Your task to perform on an android device: Open Chrome and go to the settings page Image 0: 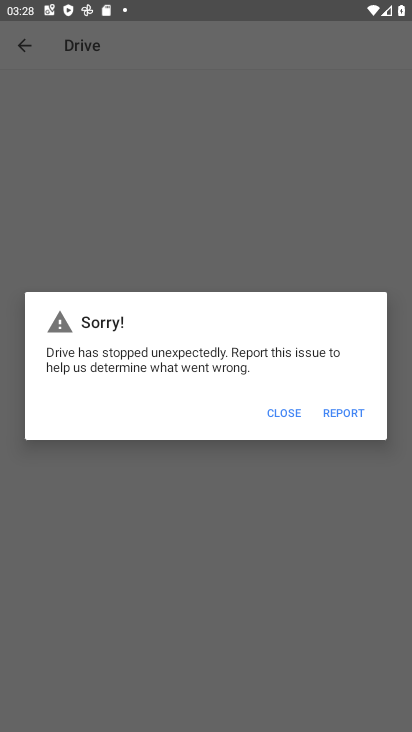
Step 0: press home button
Your task to perform on an android device: Open Chrome and go to the settings page Image 1: 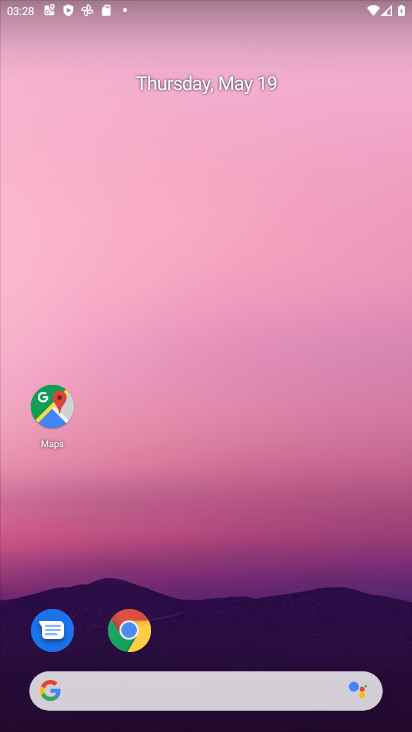
Step 1: click (131, 631)
Your task to perform on an android device: Open Chrome and go to the settings page Image 2: 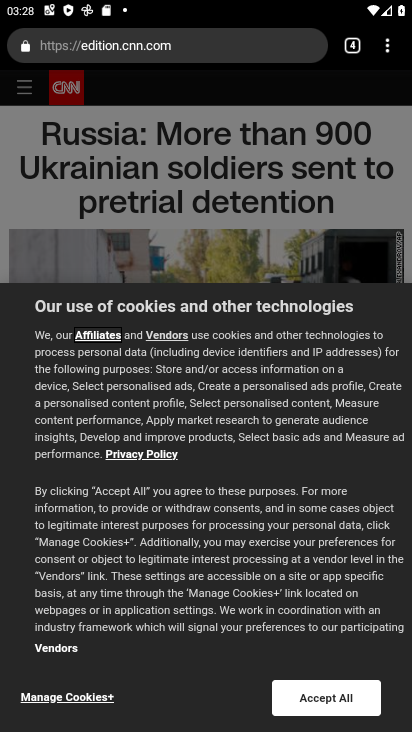
Step 2: click (388, 54)
Your task to perform on an android device: Open Chrome and go to the settings page Image 3: 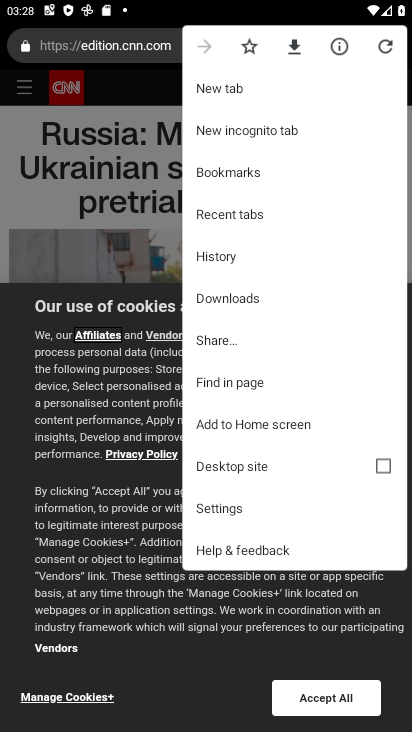
Step 3: click (219, 503)
Your task to perform on an android device: Open Chrome and go to the settings page Image 4: 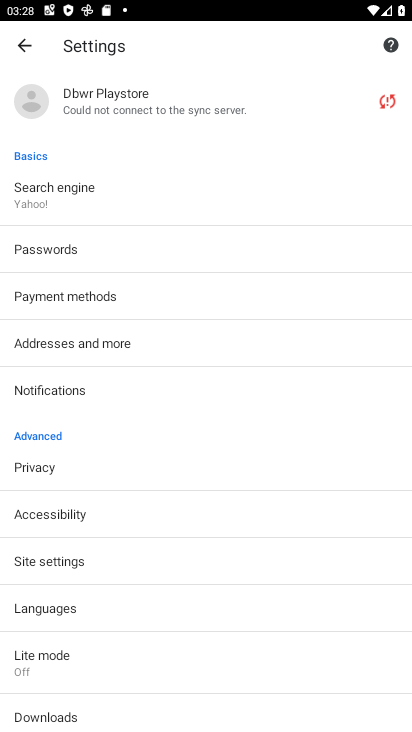
Step 4: task complete